Your task to perform on an android device: What's on my calendar tomorrow? Image 0: 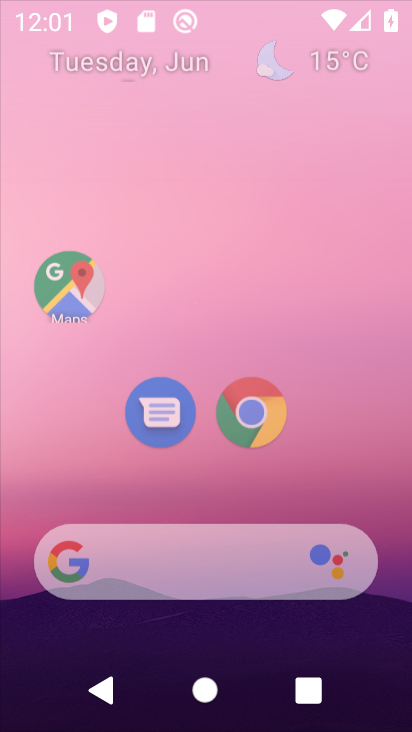
Step 0: drag from (180, 54) to (260, 21)
Your task to perform on an android device: What's on my calendar tomorrow? Image 1: 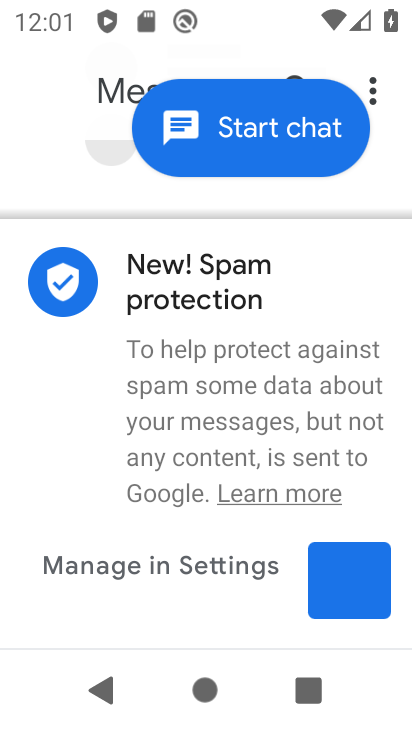
Step 1: press home button
Your task to perform on an android device: What's on my calendar tomorrow? Image 2: 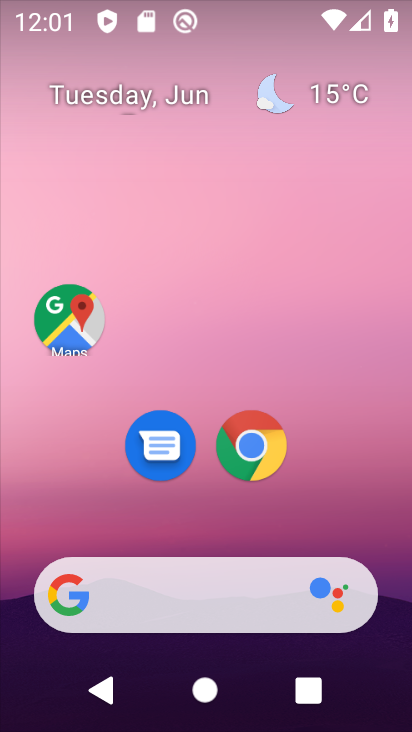
Step 2: click (141, 103)
Your task to perform on an android device: What's on my calendar tomorrow? Image 3: 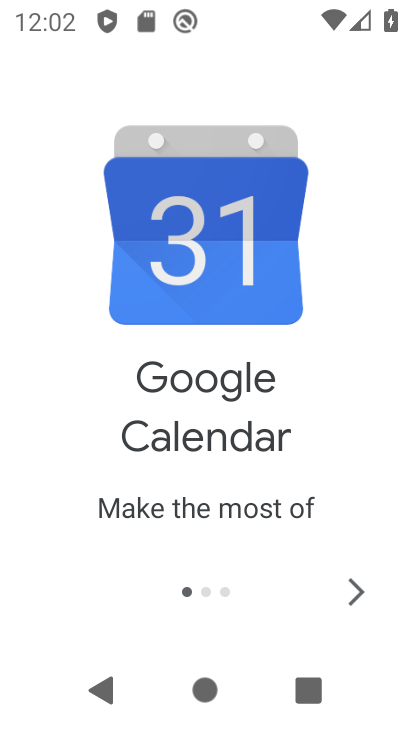
Step 3: click (361, 590)
Your task to perform on an android device: What's on my calendar tomorrow? Image 4: 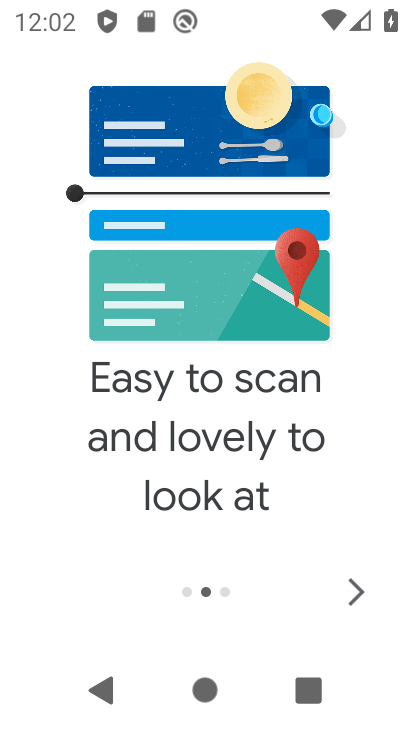
Step 4: click (361, 590)
Your task to perform on an android device: What's on my calendar tomorrow? Image 5: 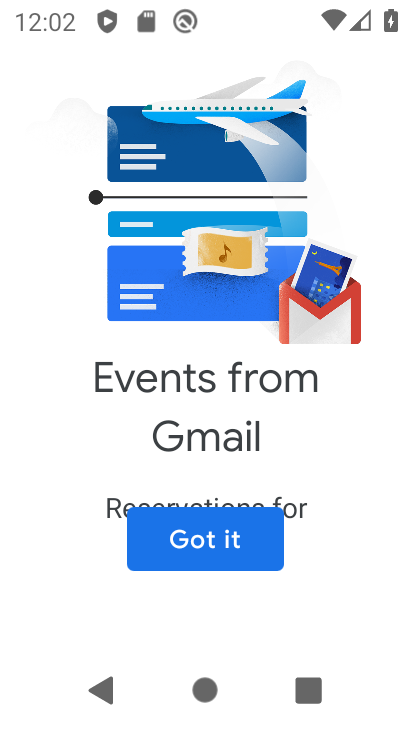
Step 5: click (171, 536)
Your task to perform on an android device: What's on my calendar tomorrow? Image 6: 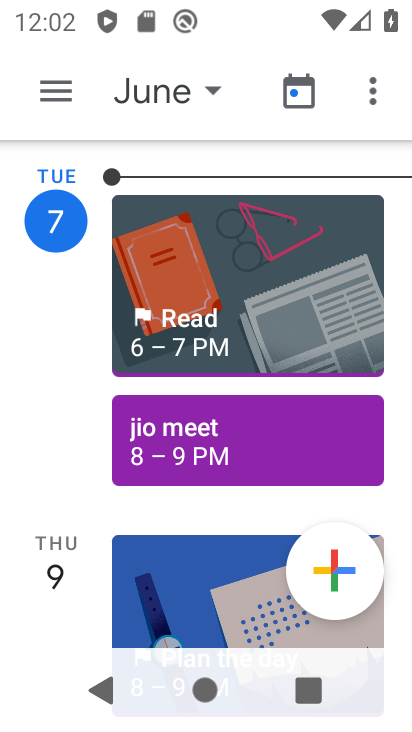
Step 6: click (166, 94)
Your task to perform on an android device: What's on my calendar tomorrow? Image 7: 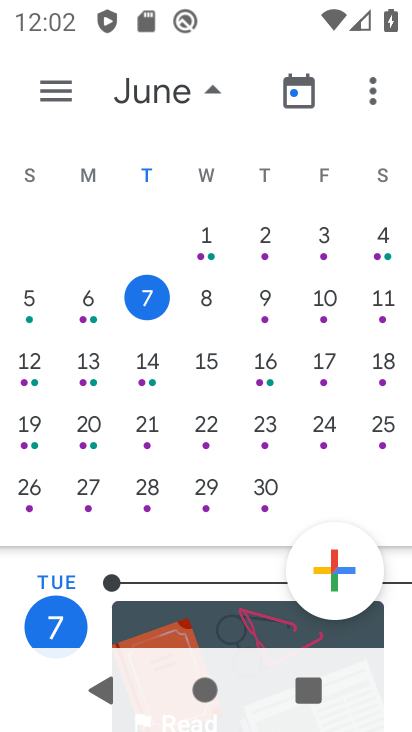
Step 7: click (211, 299)
Your task to perform on an android device: What's on my calendar tomorrow? Image 8: 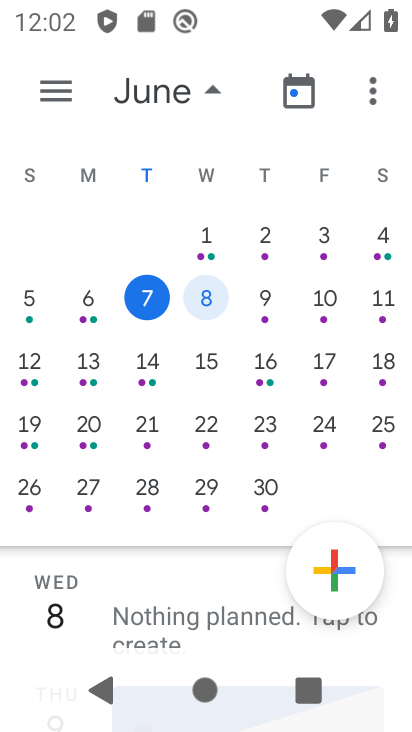
Step 8: task complete